Your task to perform on an android device: Open notification settings Image 0: 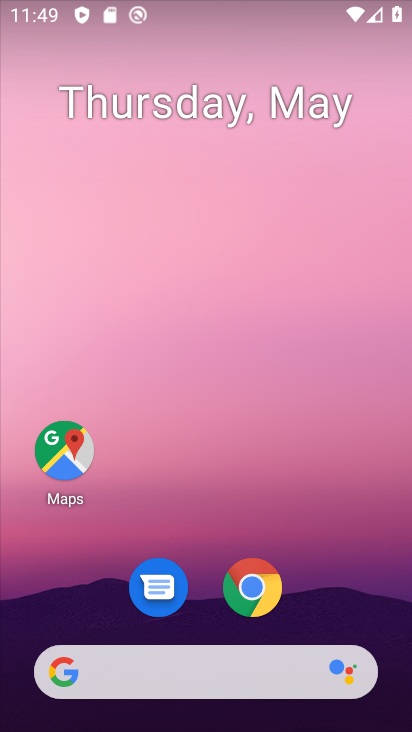
Step 0: drag from (170, 725) to (214, 119)
Your task to perform on an android device: Open notification settings Image 1: 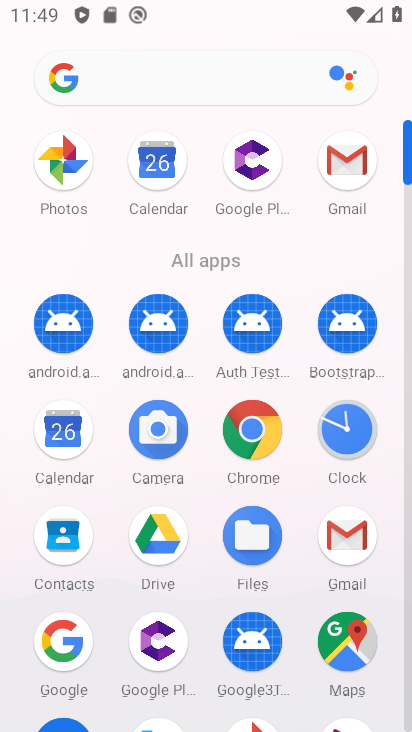
Step 1: drag from (93, 670) to (137, 204)
Your task to perform on an android device: Open notification settings Image 2: 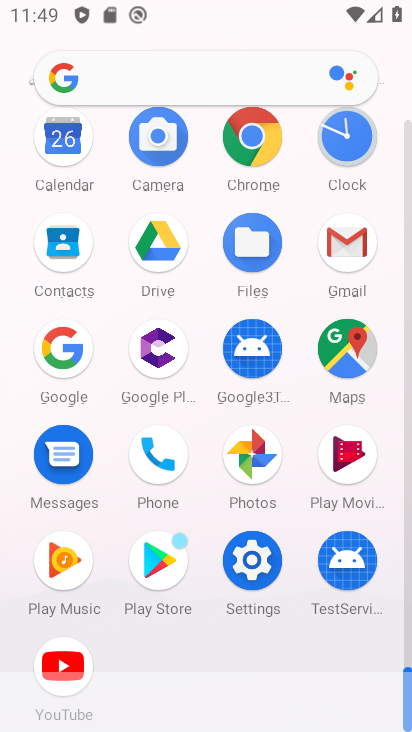
Step 2: click (254, 572)
Your task to perform on an android device: Open notification settings Image 3: 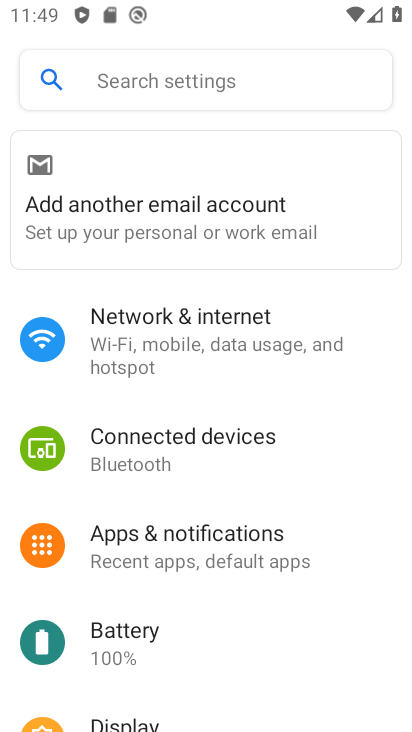
Step 3: click (248, 562)
Your task to perform on an android device: Open notification settings Image 4: 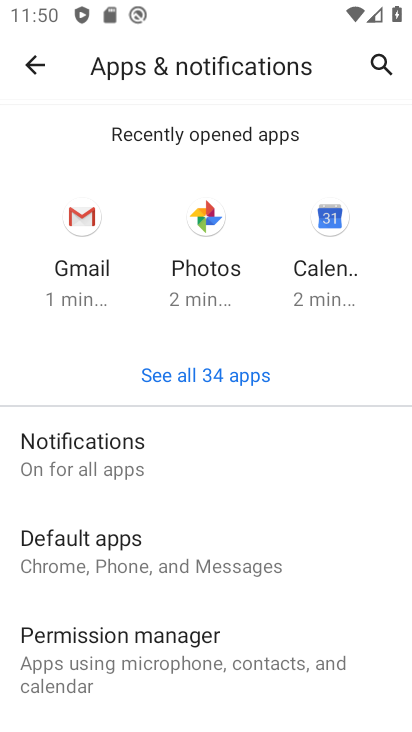
Step 4: task complete